Your task to perform on an android device: open app "WhatsApp Messenger" (install if not already installed) and enter user name: "cartons@outlook.com" and password: "approximated" Image 0: 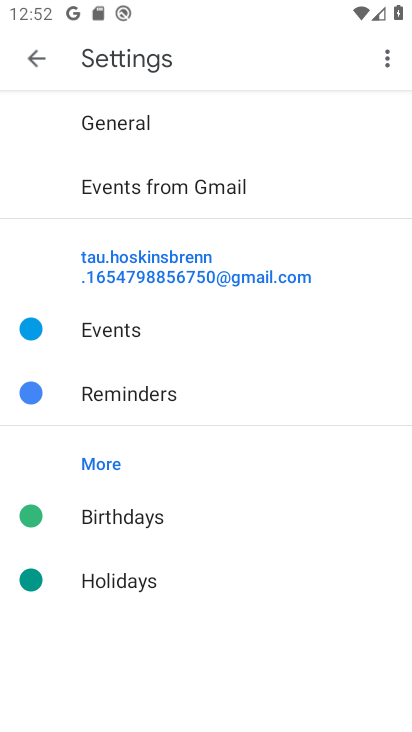
Step 0: press home button
Your task to perform on an android device: open app "WhatsApp Messenger" (install if not already installed) and enter user name: "cartons@outlook.com" and password: "approximated" Image 1: 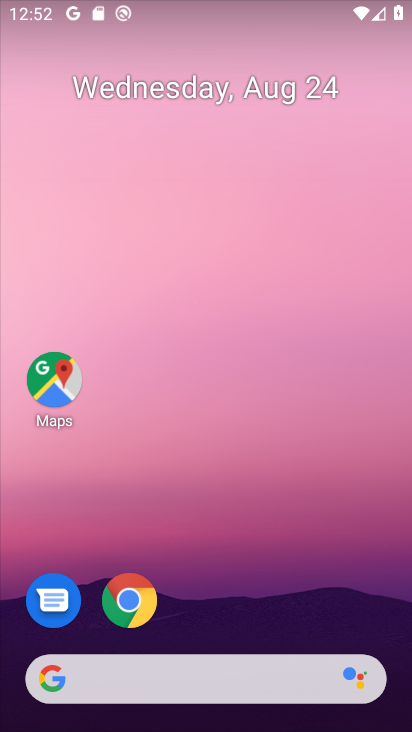
Step 1: drag from (223, 233) to (226, 105)
Your task to perform on an android device: open app "WhatsApp Messenger" (install if not already installed) and enter user name: "cartons@outlook.com" and password: "approximated" Image 2: 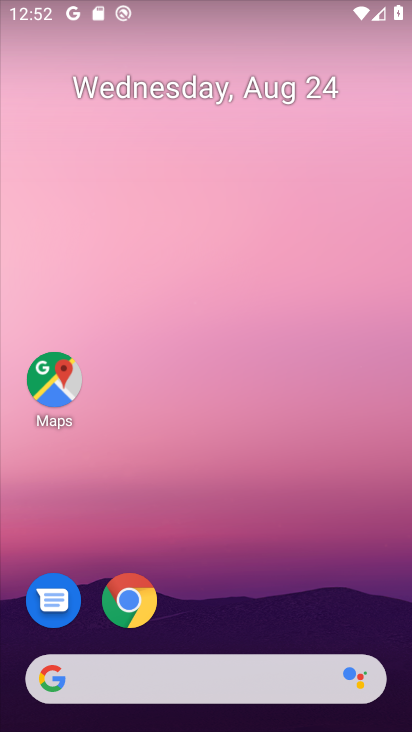
Step 2: drag from (200, 623) to (199, 47)
Your task to perform on an android device: open app "WhatsApp Messenger" (install if not already installed) and enter user name: "cartons@outlook.com" and password: "approximated" Image 3: 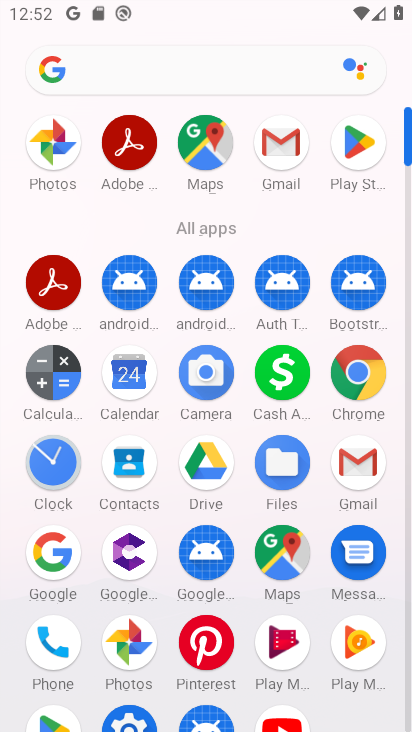
Step 3: click (363, 140)
Your task to perform on an android device: open app "WhatsApp Messenger" (install if not already installed) and enter user name: "cartons@outlook.com" and password: "approximated" Image 4: 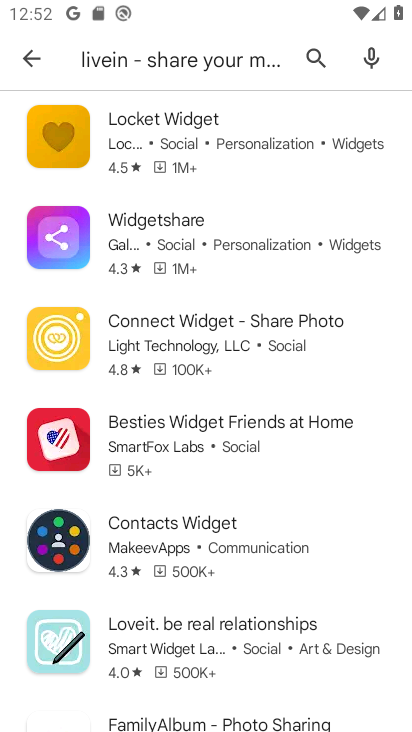
Step 4: click (314, 62)
Your task to perform on an android device: open app "WhatsApp Messenger" (install if not already installed) and enter user name: "cartons@outlook.com" and password: "approximated" Image 5: 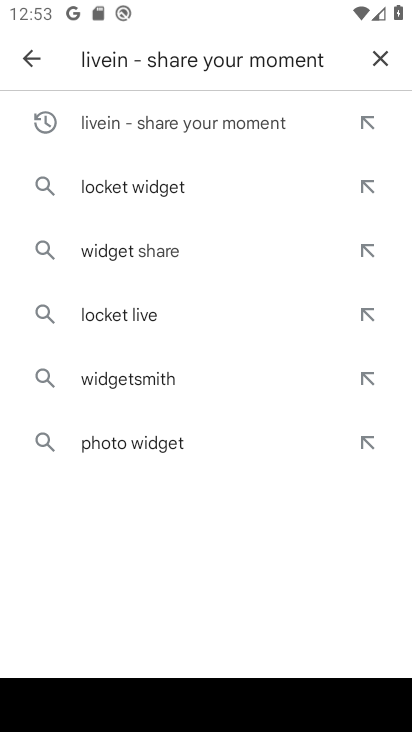
Step 5: click (152, 126)
Your task to perform on an android device: open app "WhatsApp Messenger" (install if not already installed) and enter user name: "cartons@outlook.com" and password: "approximated" Image 6: 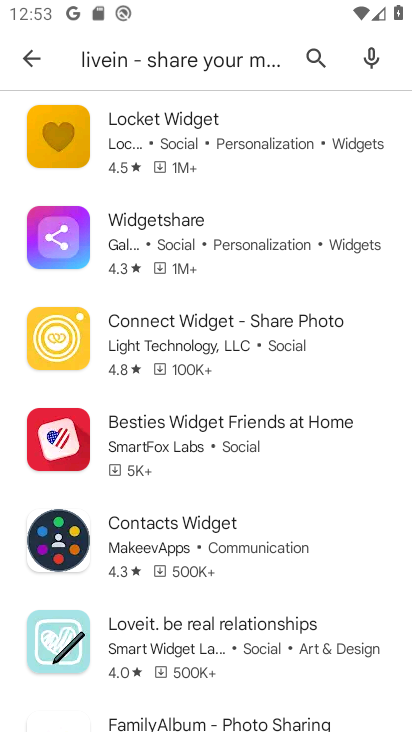
Step 6: click (309, 57)
Your task to perform on an android device: open app "WhatsApp Messenger" (install if not already installed) and enter user name: "cartons@outlook.com" and password: "approximated" Image 7: 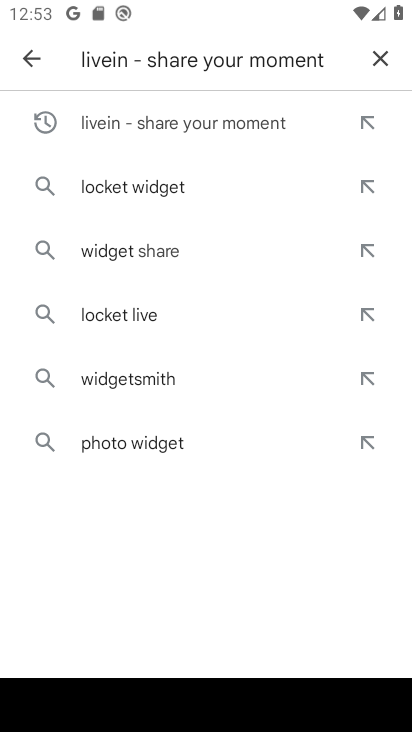
Step 7: click (376, 53)
Your task to perform on an android device: open app "WhatsApp Messenger" (install if not already installed) and enter user name: "cartons@outlook.com" and password: "approximated" Image 8: 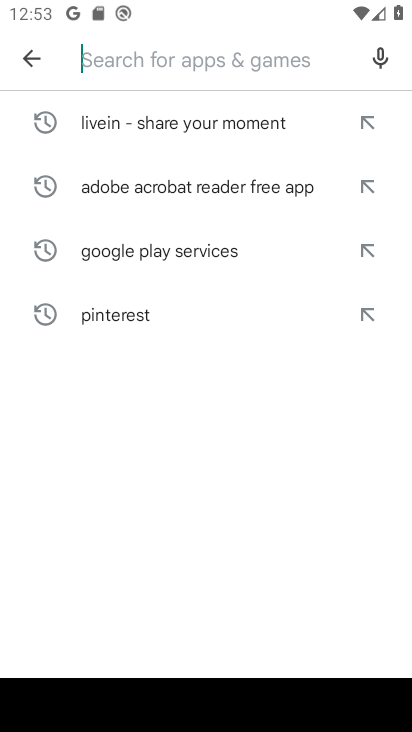
Step 8: type "WhatsApp Messenger"
Your task to perform on an android device: open app "WhatsApp Messenger" (install if not already installed) and enter user name: "cartons@outlook.com" and password: "approximated" Image 9: 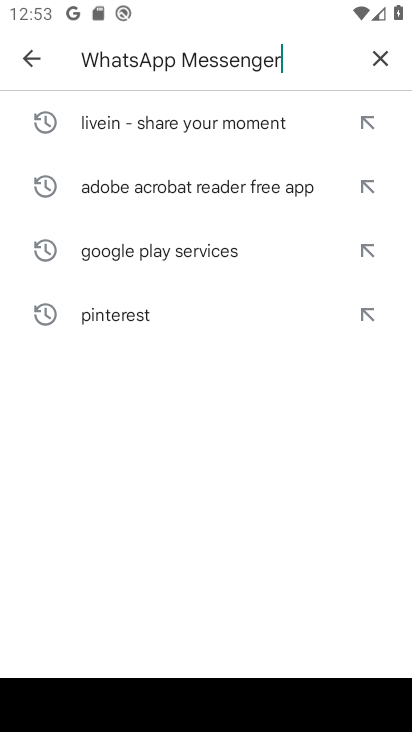
Step 9: type ""
Your task to perform on an android device: open app "WhatsApp Messenger" (install if not already installed) and enter user name: "cartons@outlook.com" and password: "approximated" Image 10: 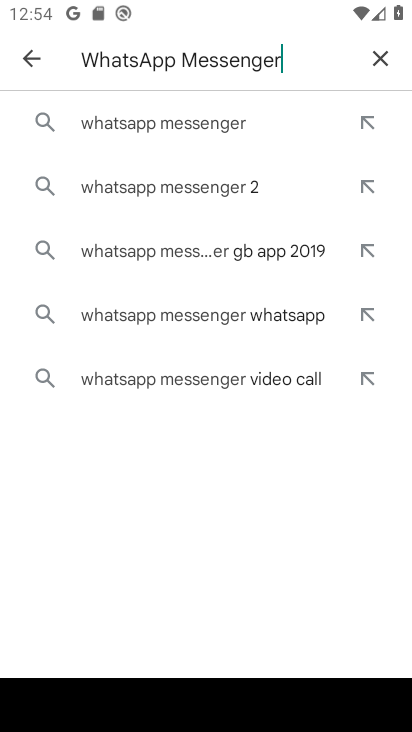
Step 10: click (211, 124)
Your task to perform on an android device: open app "WhatsApp Messenger" (install if not already installed) and enter user name: "cartons@outlook.com" and password: "approximated" Image 11: 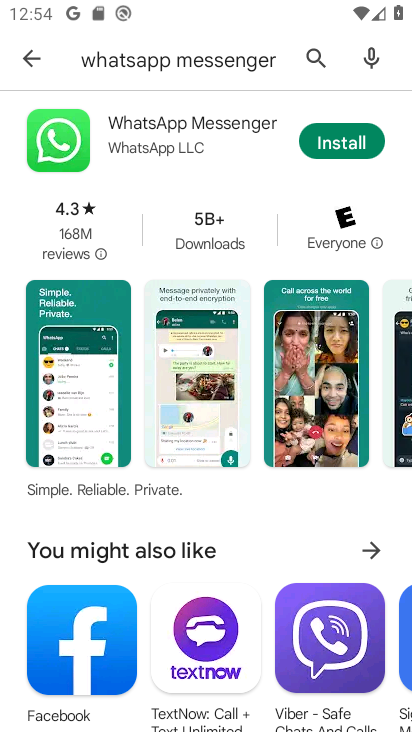
Step 11: click (348, 145)
Your task to perform on an android device: open app "WhatsApp Messenger" (install if not already installed) and enter user name: "cartons@outlook.com" and password: "approximated" Image 12: 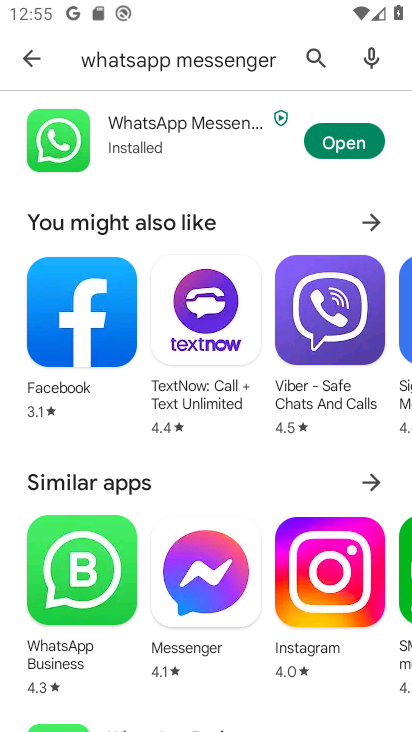
Step 12: click (342, 146)
Your task to perform on an android device: open app "WhatsApp Messenger" (install if not already installed) and enter user name: "cartons@outlook.com" and password: "approximated" Image 13: 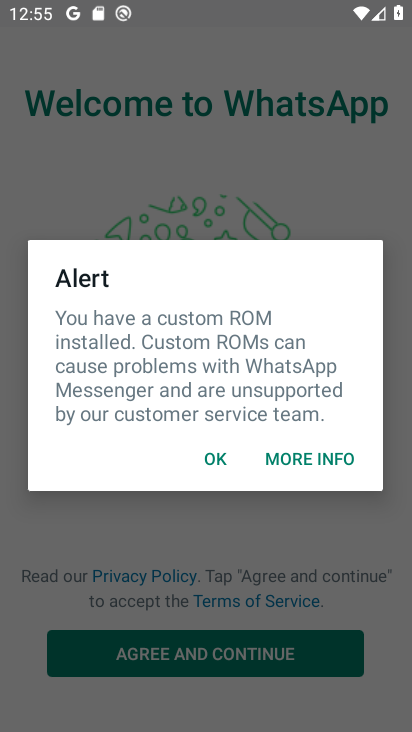
Step 13: click (213, 467)
Your task to perform on an android device: open app "WhatsApp Messenger" (install if not already installed) and enter user name: "cartons@outlook.com" and password: "approximated" Image 14: 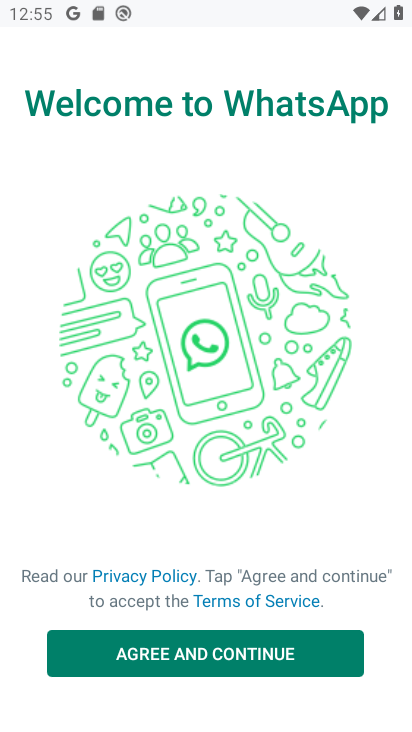
Step 14: task complete